Your task to perform on an android device: make emails show in primary in the gmail app Image 0: 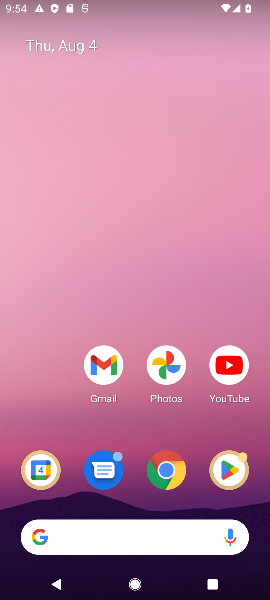
Step 0: click (102, 360)
Your task to perform on an android device: make emails show in primary in the gmail app Image 1: 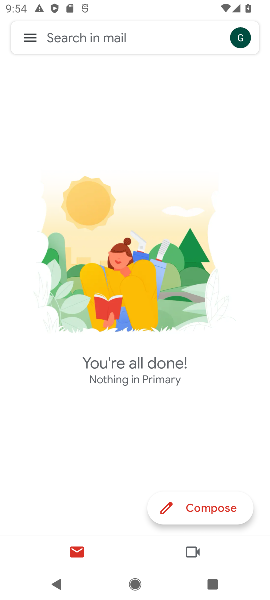
Step 1: click (35, 44)
Your task to perform on an android device: make emails show in primary in the gmail app Image 2: 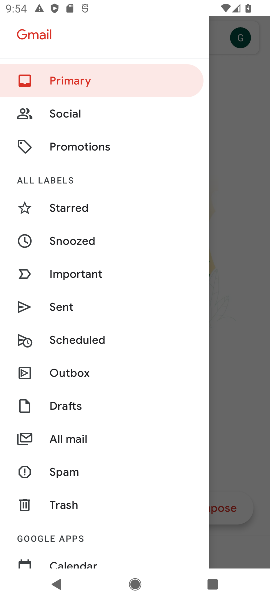
Step 2: drag from (90, 538) to (78, 429)
Your task to perform on an android device: make emails show in primary in the gmail app Image 3: 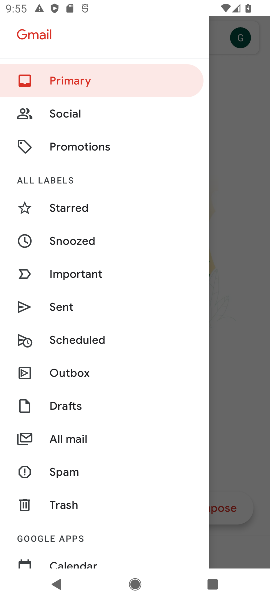
Step 3: drag from (52, 527) to (52, 427)
Your task to perform on an android device: make emails show in primary in the gmail app Image 4: 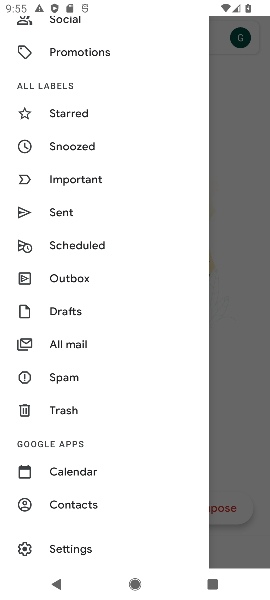
Step 4: click (75, 545)
Your task to perform on an android device: make emails show in primary in the gmail app Image 5: 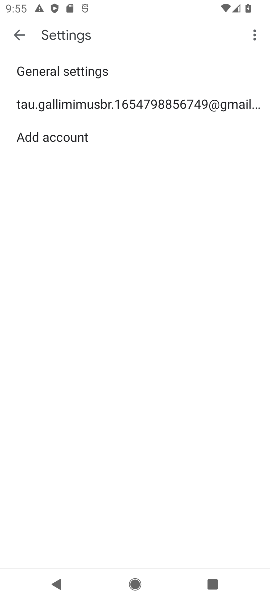
Step 5: click (146, 109)
Your task to perform on an android device: make emails show in primary in the gmail app Image 6: 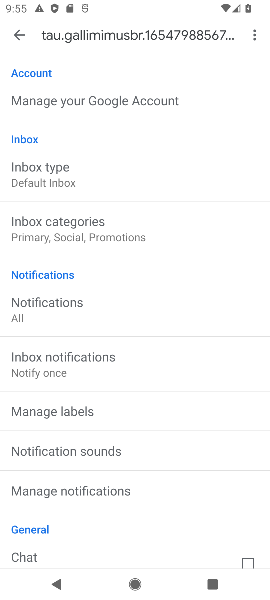
Step 6: task complete